Your task to perform on an android device: toggle wifi Image 0: 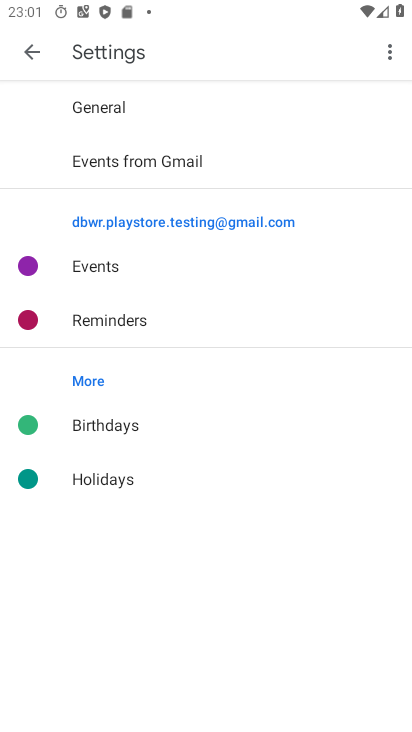
Step 0: press home button
Your task to perform on an android device: toggle wifi Image 1: 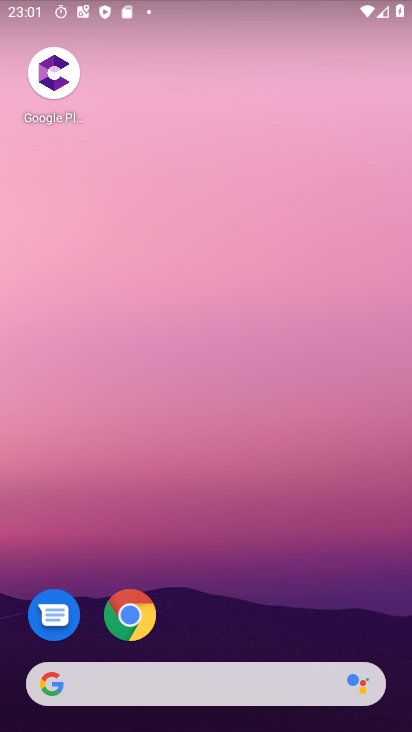
Step 1: drag from (227, 3) to (227, 305)
Your task to perform on an android device: toggle wifi Image 2: 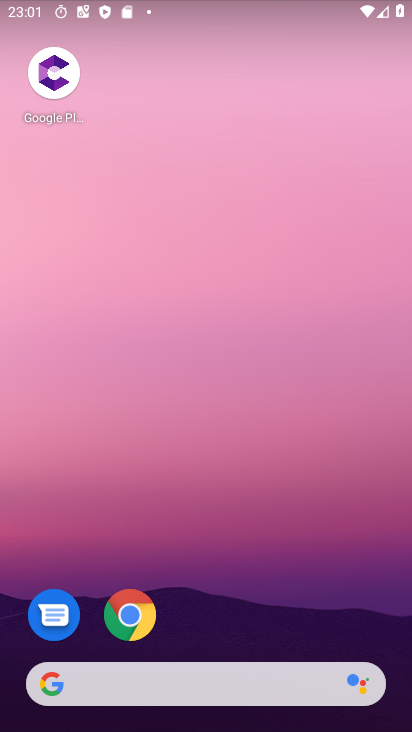
Step 2: drag from (175, 4) to (187, 314)
Your task to perform on an android device: toggle wifi Image 3: 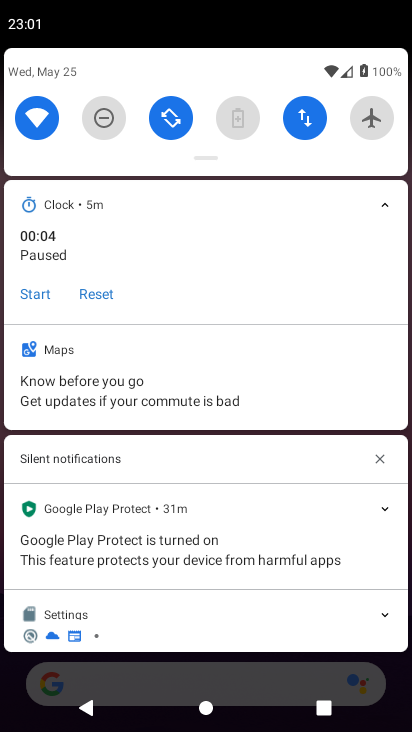
Step 3: click (33, 112)
Your task to perform on an android device: toggle wifi Image 4: 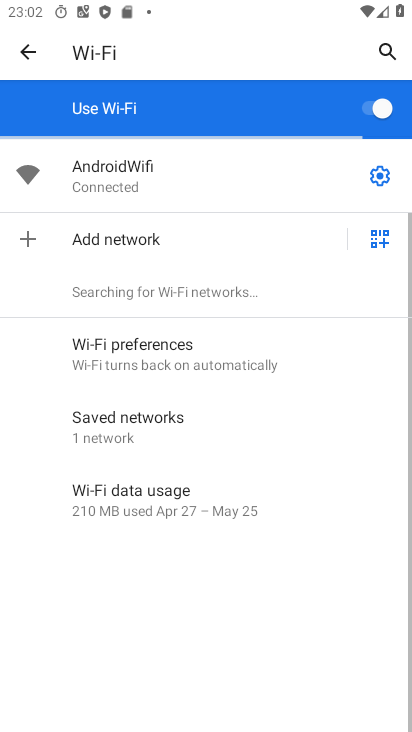
Step 4: click (384, 115)
Your task to perform on an android device: toggle wifi Image 5: 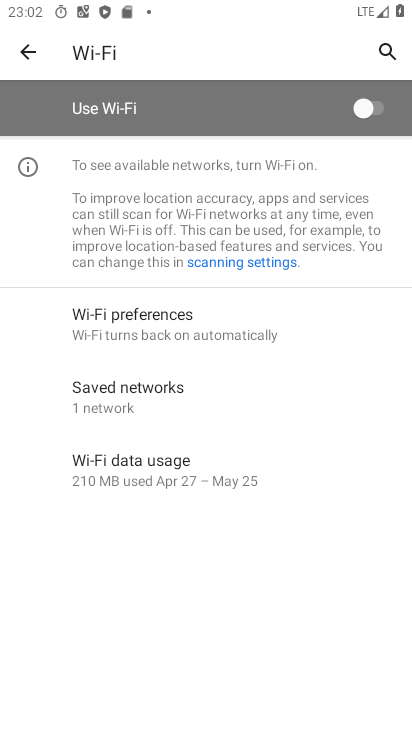
Step 5: task complete